Your task to perform on an android device: turn off location history Image 0: 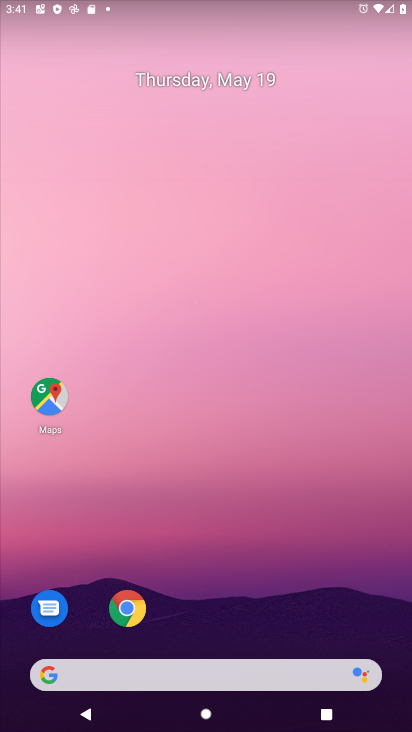
Step 0: drag from (322, 632) to (172, 76)
Your task to perform on an android device: turn off location history Image 1: 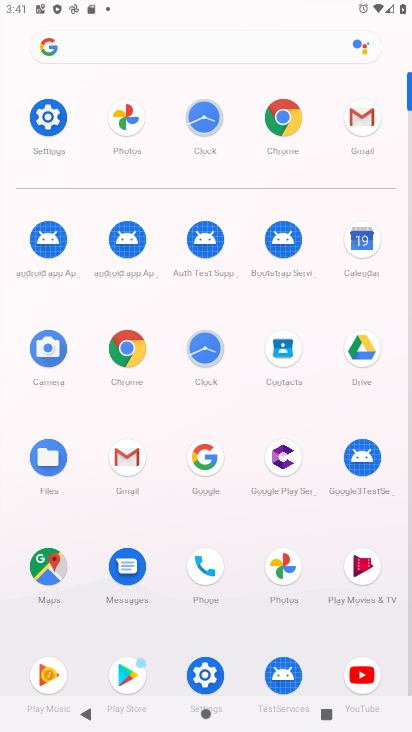
Step 1: click (37, 106)
Your task to perform on an android device: turn off location history Image 2: 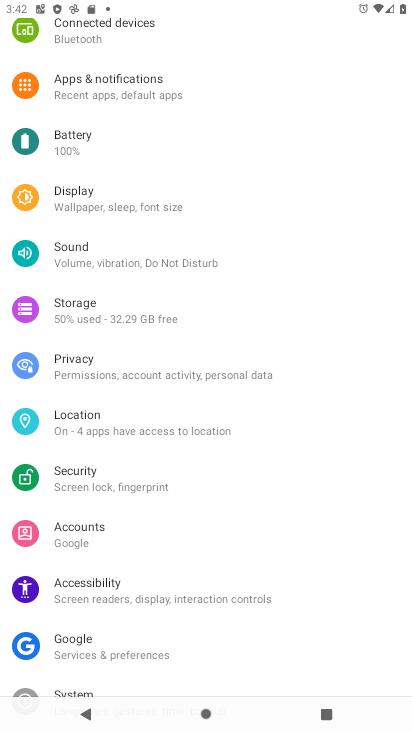
Step 2: click (105, 418)
Your task to perform on an android device: turn off location history Image 3: 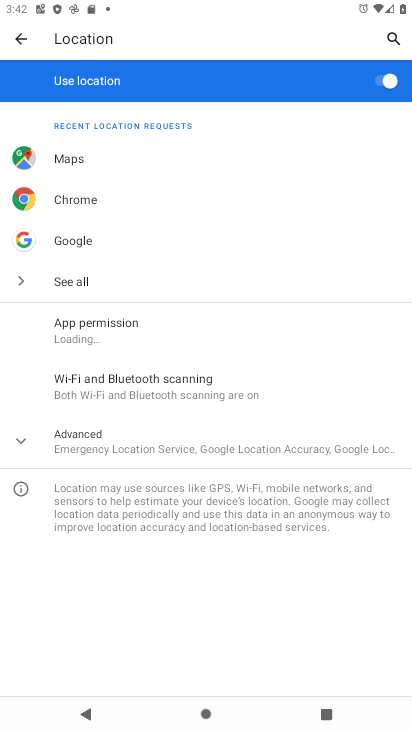
Step 3: click (218, 75)
Your task to perform on an android device: turn off location history Image 4: 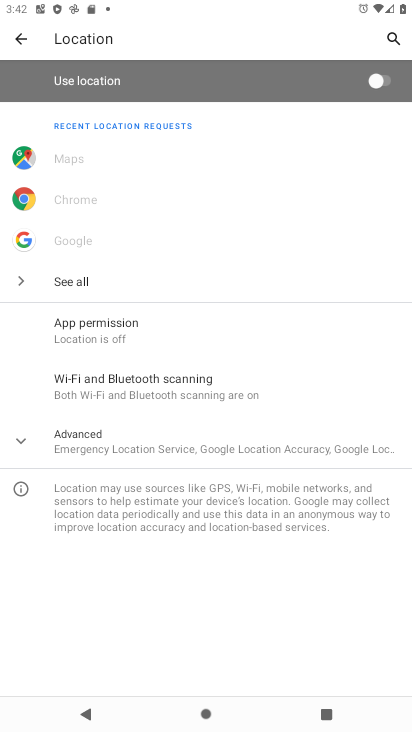
Step 4: task complete